Your task to perform on an android device: Go to sound settings Image 0: 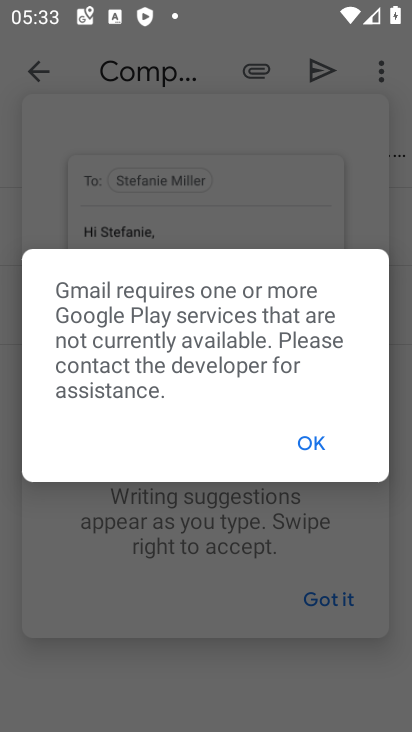
Step 0: press home button
Your task to perform on an android device: Go to sound settings Image 1: 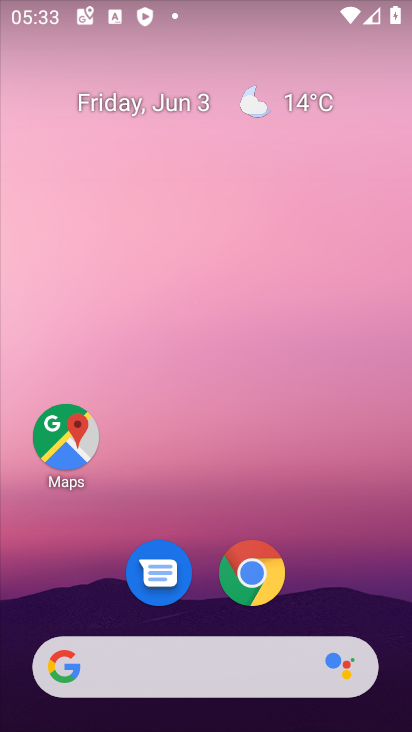
Step 1: drag from (347, 689) to (321, 46)
Your task to perform on an android device: Go to sound settings Image 2: 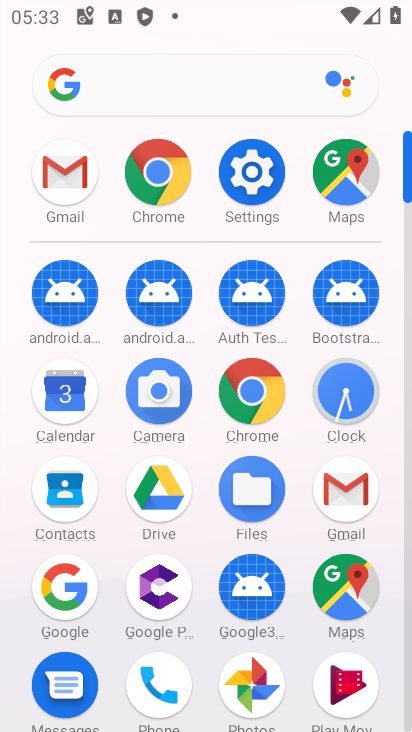
Step 2: click (283, 179)
Your task to perform on an android device: Go to sound settings Image 3: 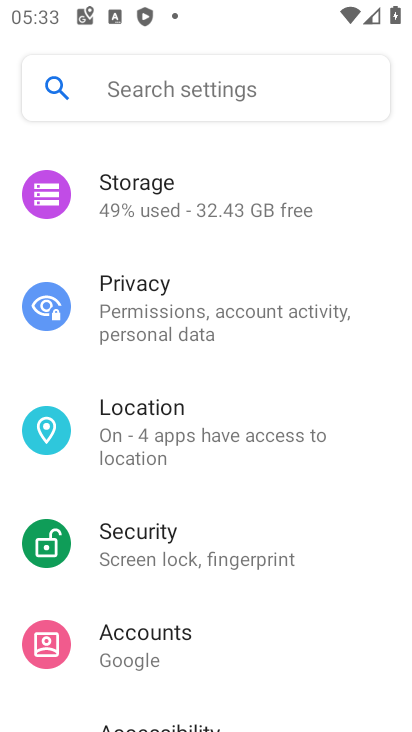
Step 3: drag from (254, 288) to (251, 730)
Your task to perform on an android device: Go to sound settings Image 4: 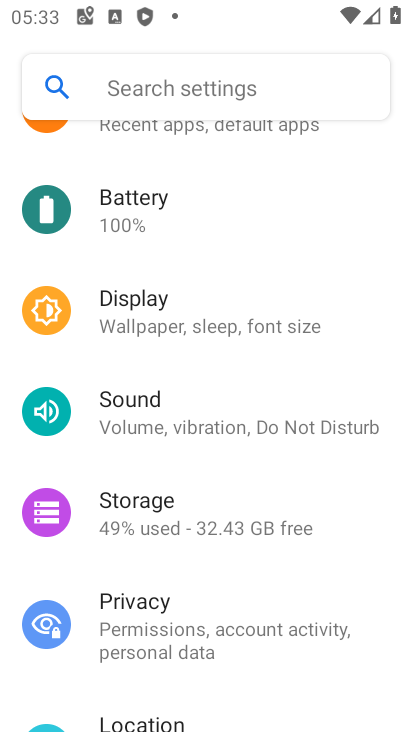
Step 4: click (213, 436)
Your task to perform on an android device: Go to sound settings Image 5: 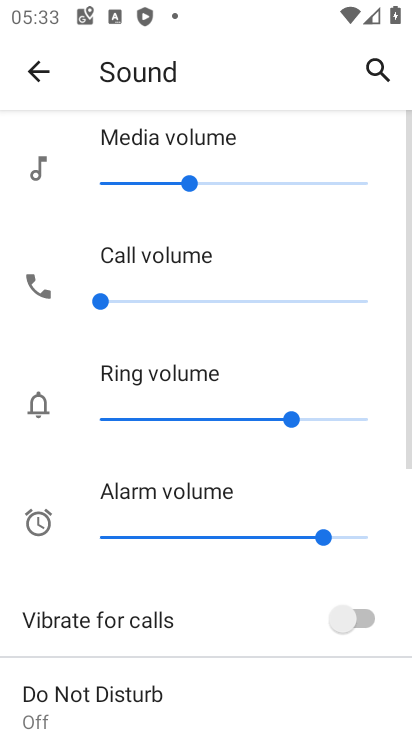
Step 5: task complete